Your task to perform on an android device: open device folders in google photos Image 0: 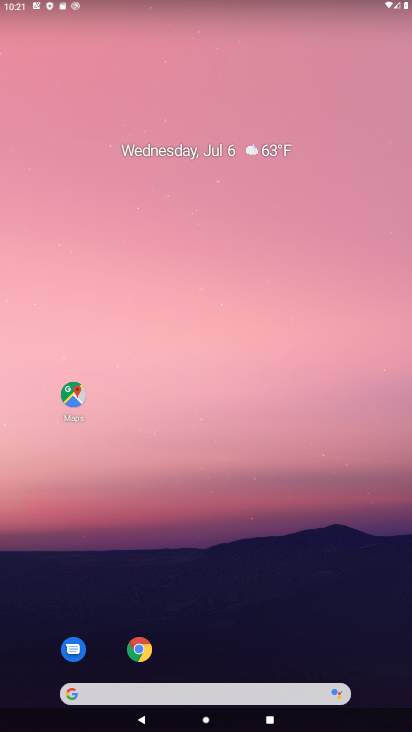
Step 0: press home button
Your task to perform on an android device: open device folders in google photos Image 1: 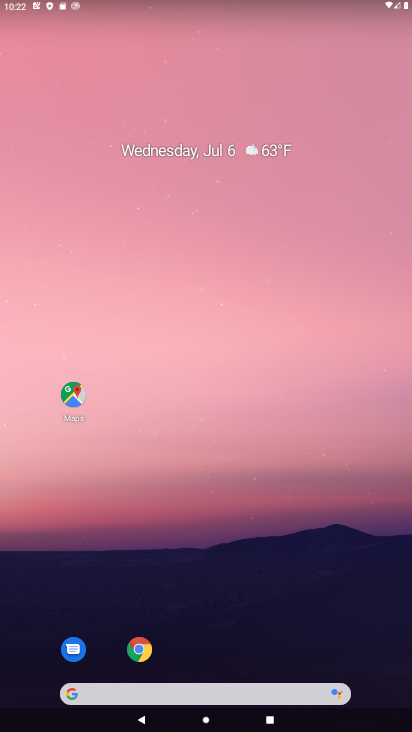
Step 1: drag from (275, 650) to (203, 63)
Your task to perform on an android device: open device folders in google photos Image 2: 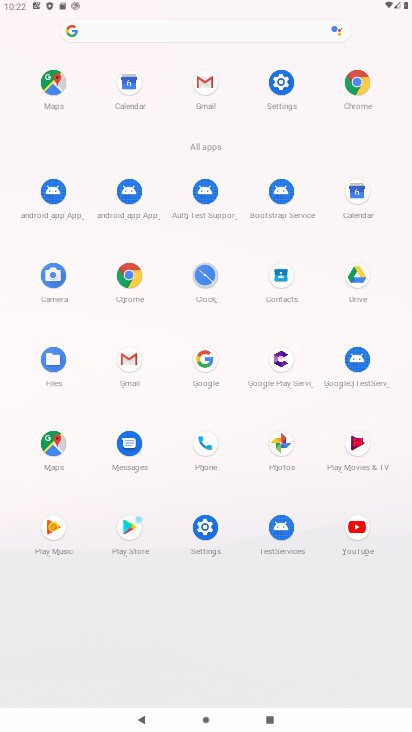
Step 2: click (280, 447)
Your task to perform on an android device: open device folders in google photos Image 3: 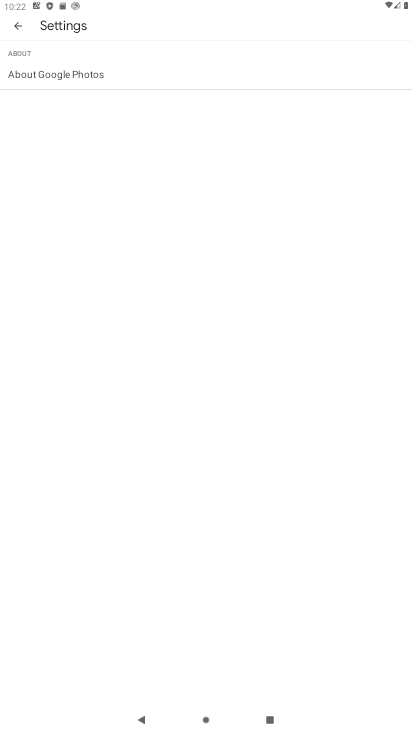
Step 3: click (20, 28)
Your task to perform on an android device: open device folders in google photos Image 4: 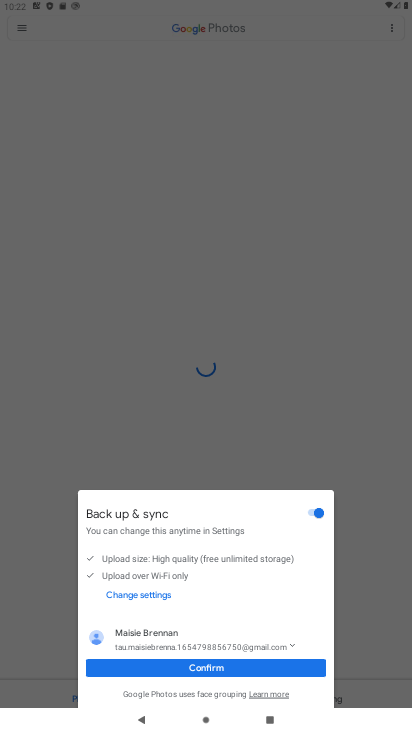
Step 4: click (227, 669)
Your task to perform on an android device: open device folders in google photos Image 5: 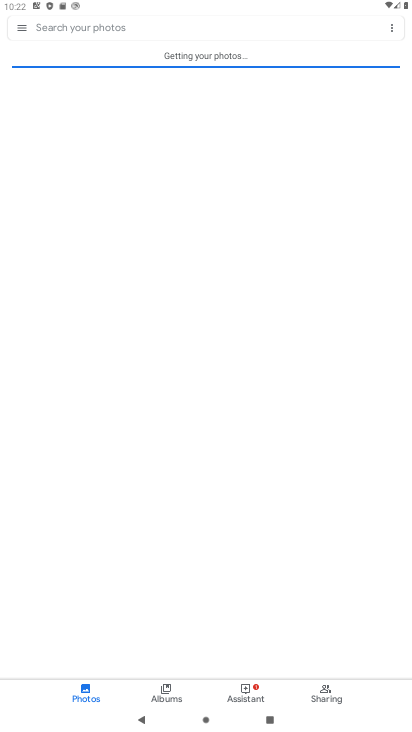
Step 5: click (21, 29)
Your task to perform on an android device: open device folders in google photos Image 6: 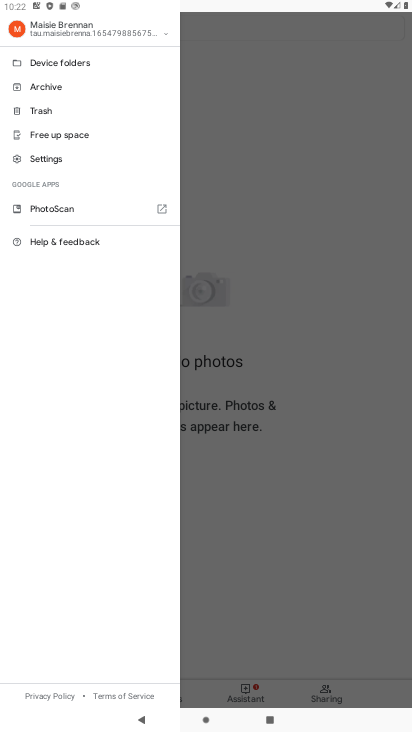
Step 6: click (62, 61)
Your task to perform on an android device: open device folders in google photos Image 7: 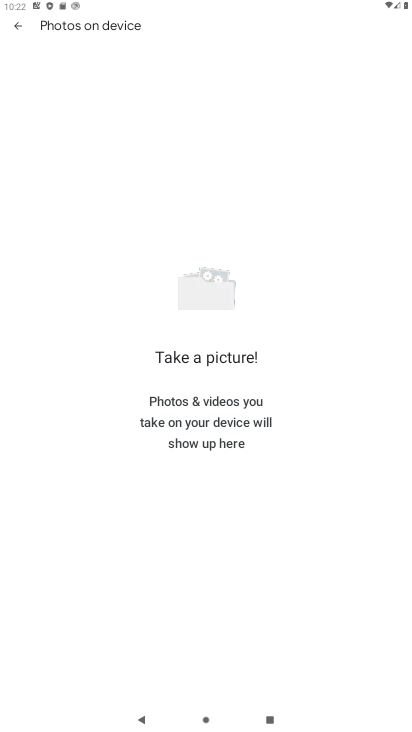
Step 7: task complete